Your task to perform on an android device: turn smart compose on in the gmail app Image 0: 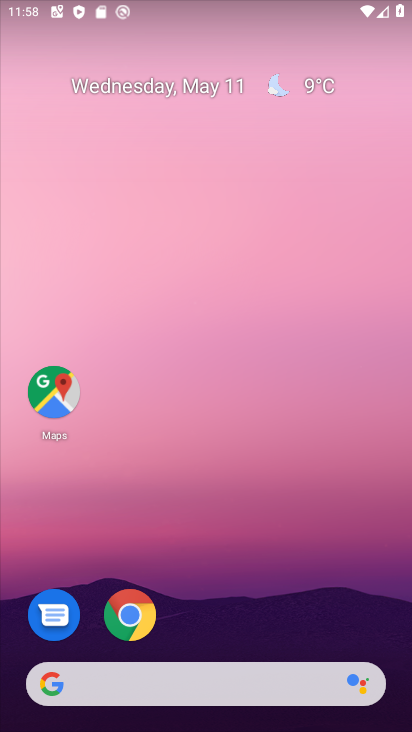
Step 0: drag from (288, 560) to (323, 163)
Your task to perform on an android device: turn smart compose on in the gmail app Image 1: 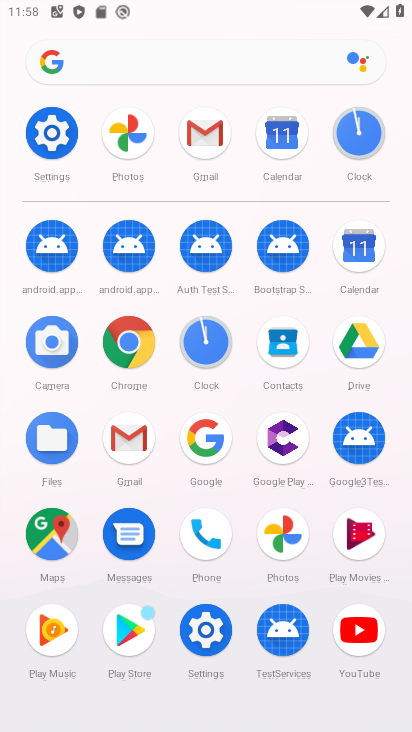
Step 1: click (213, 135)
Your task to perform on an android device: turn smart compose on in the gmail app Image 2: 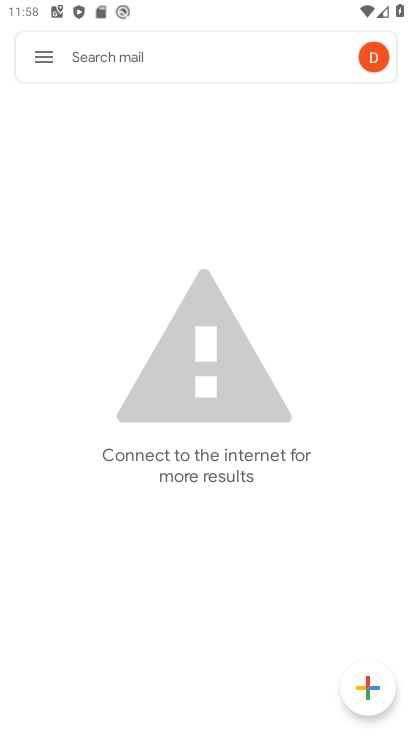
Step 2: click (35, 49)
Your task to perform on an android device: turn smart compose on in the gmail app Image 3: 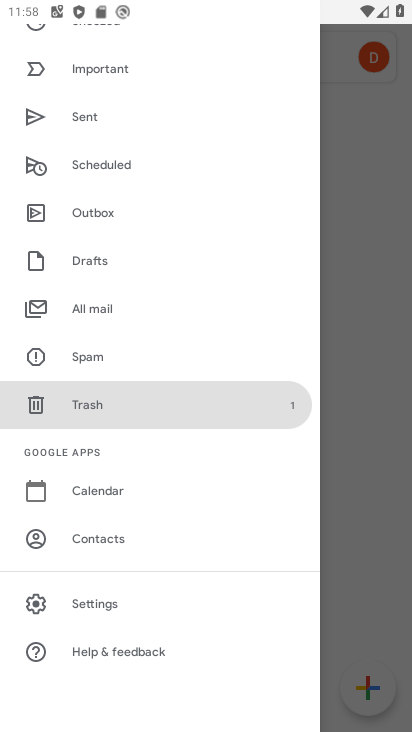
Step 3: click (101, 589)
Your task to perform on an android device: turn smart compose on in the gmail app Image 4: 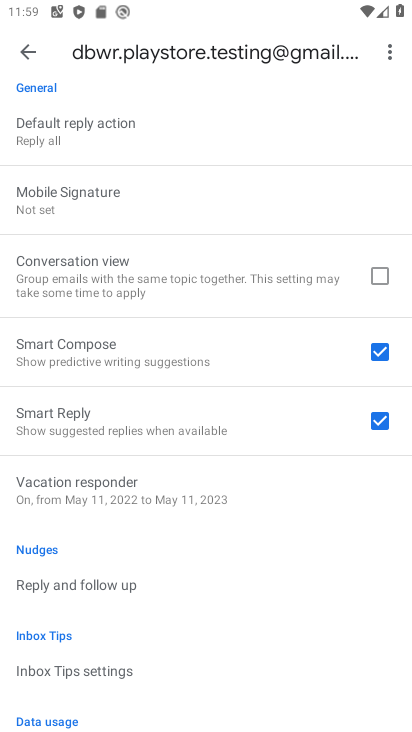
Step 4: task complete